Your task to perform on an android device: see creations saved in the google photos Image 0: 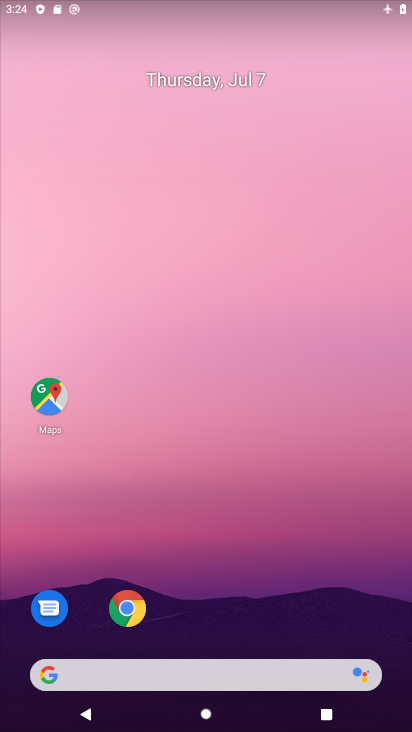
Step 0: drag from (340, 550) to (231, 28)
Your task to perform on an android device: see creations saved in the google photos Image 1: 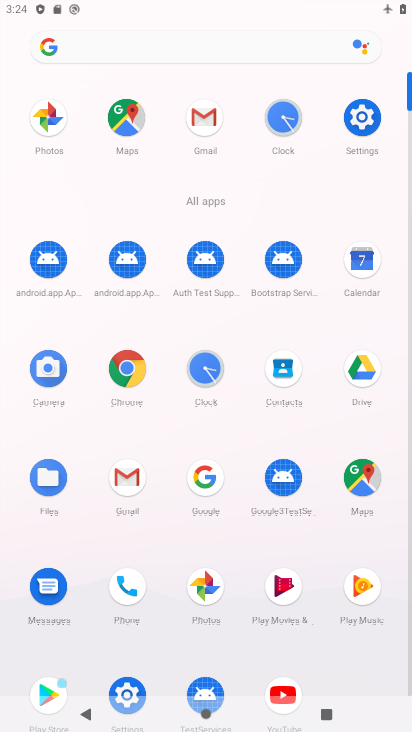
Step 1: click (37, 125)
Your task to perform on an android device: see creations saved in the google photos Image 2: 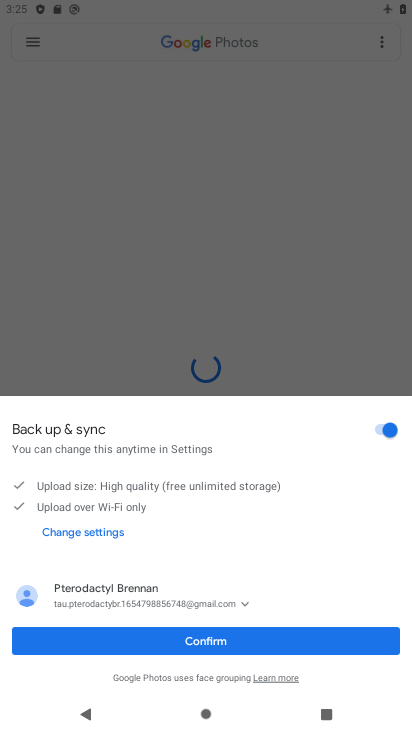
Step 2: click (208, 647)
Your task to perform on an android device: see creations saved in the google photos Image 3: 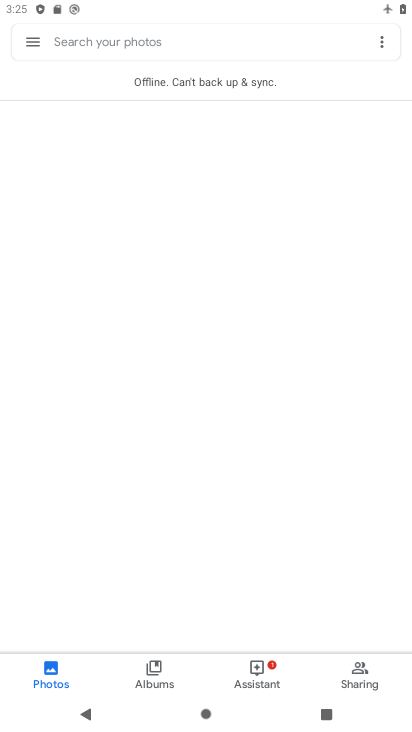
Step 3: click (176, 41)
Your task to perform on an android device: see creations saved in the google photos Image 4: 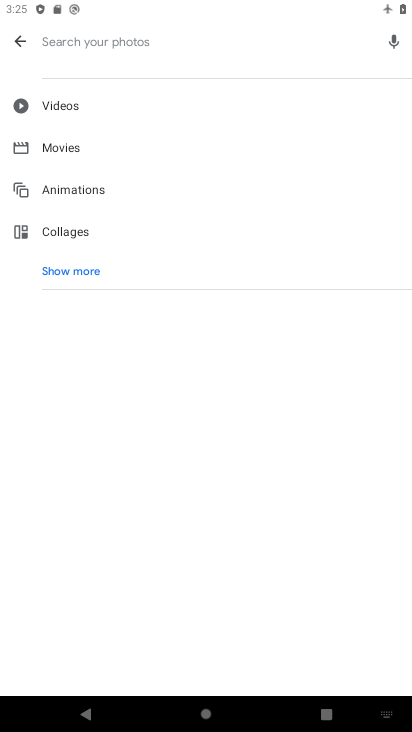
Step 4: click (90, 277)
Your task to perform on an android device: see creations saved in the google photos Image 5: 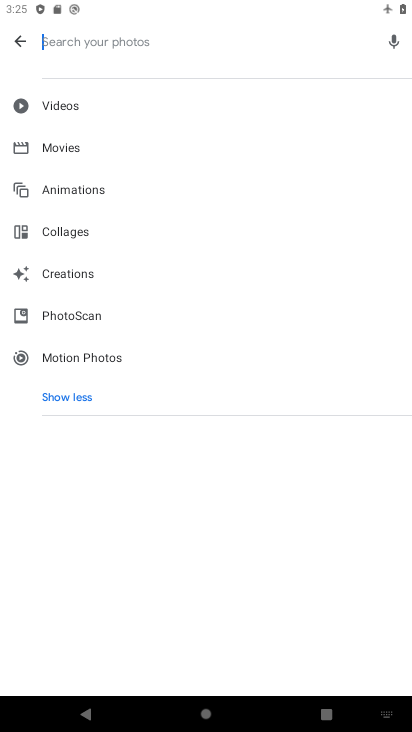
Step 5: click (90, 283)
Your task to perform on an android device: see creations saved in the google photos Image 6: 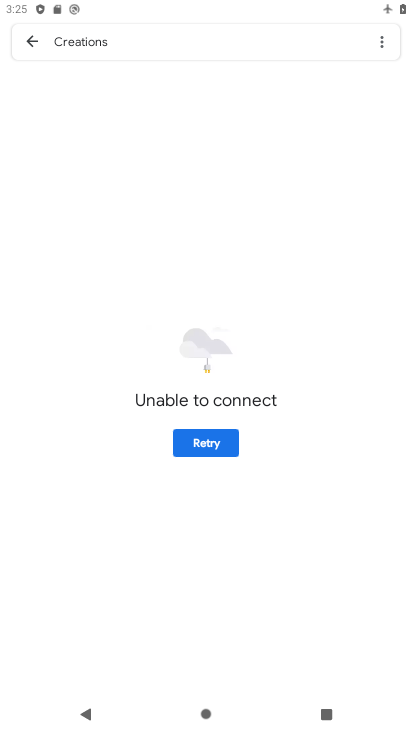
Step 6: task complete